Your task to perform on an android device: add a contact in the contacts app Image 0: 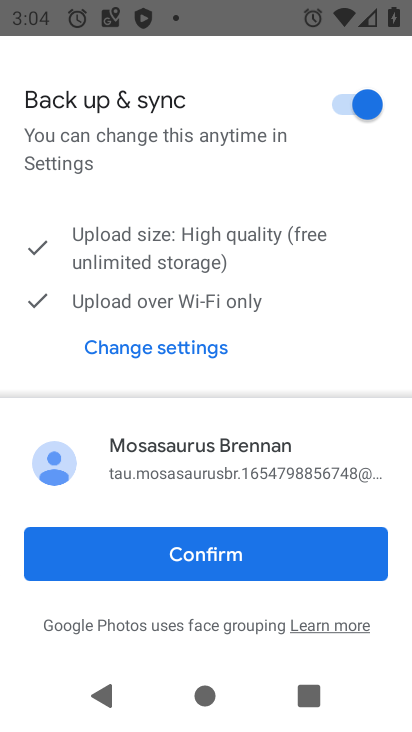
Step 0: press home button
Your task to perform on an android device: add a contact in the contacts app Image 1: 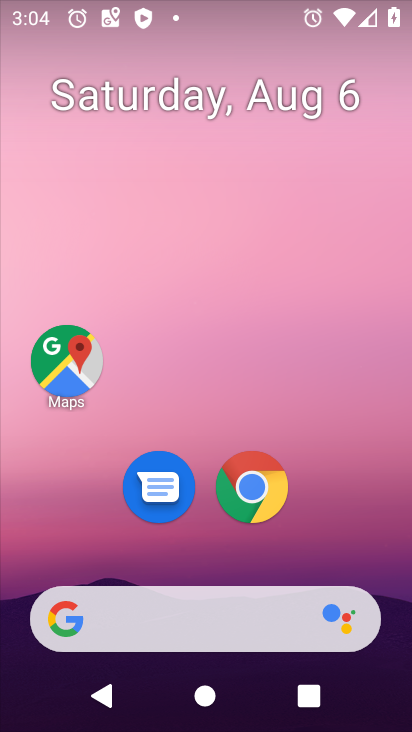
Step 1: drag from (250, 591) to (308, 55)
Your task to perform on an android device: add a contact in the contacts app Image 2: 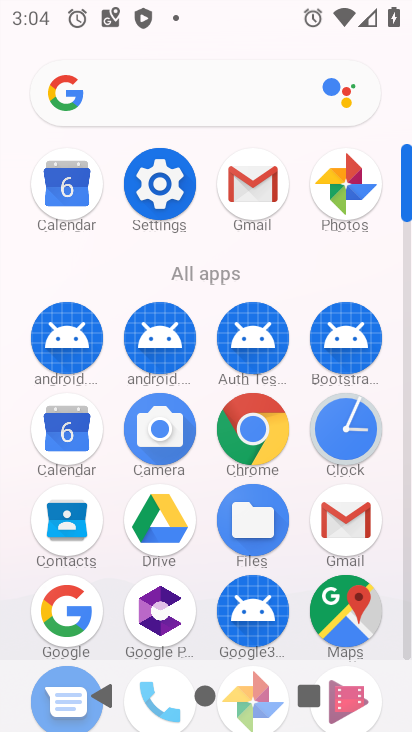
Step 2: click (83, 508)
Your task to perform on an android device: add a contact in the contacts app Image 3: 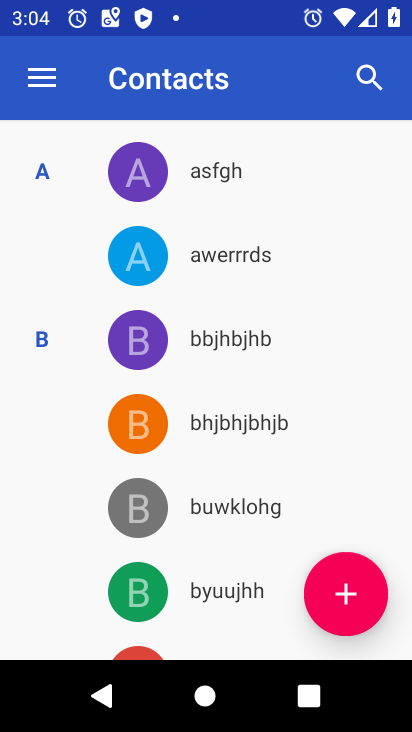
Step 3: click (340, 614)
Your task to perform on an android device: add a contact in the contacts app Image 4: 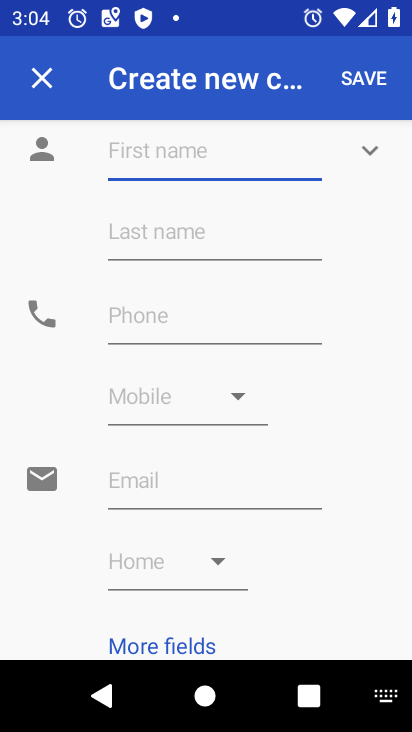
Step 4: type "aacfjab"
Your task to perform on an android device: add a contact in the contacts app Image 5: 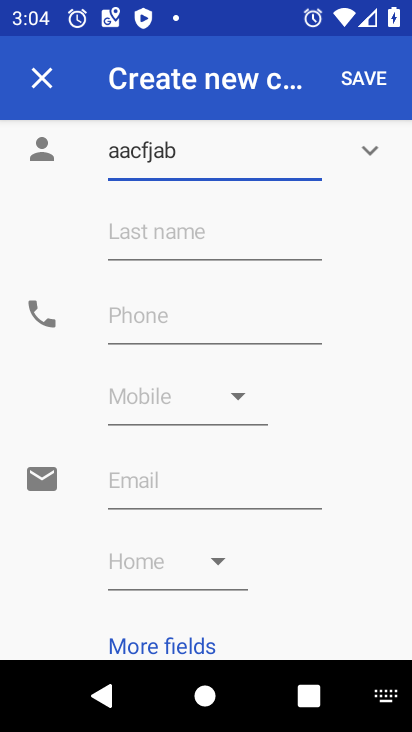
Step 5: click (290, 289)
Your task to perform on an android device: add a contact in the contacts app Image 6: 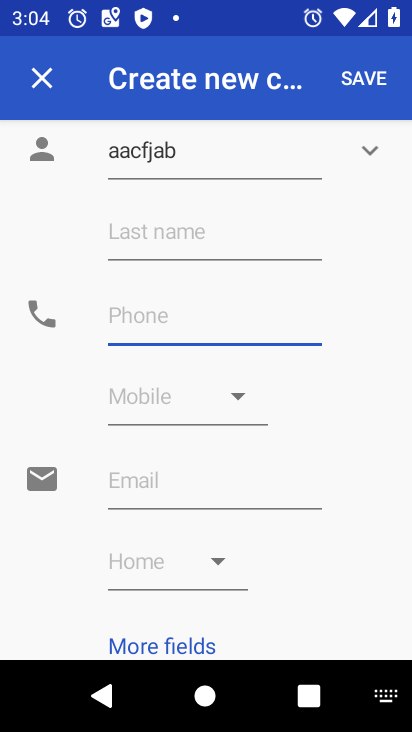
Step 6: type "6856523"
Your task to perform on an android device: add a contact in the contacts app Image 7: 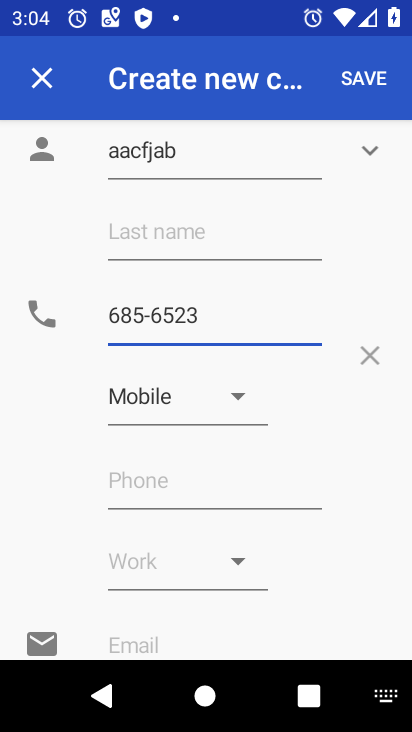
Step 7: click (371, 70)
Your task to perform on an android device: add a contact in the contacts app Image 8: 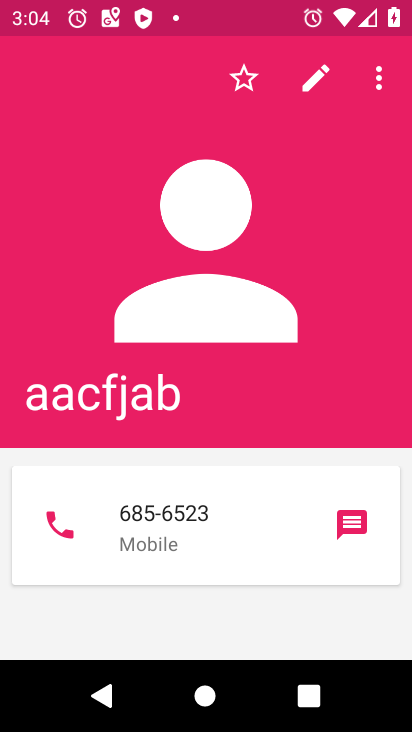
Step 8: task complete